Your task to perform on an android device: Open location settings Image 0: 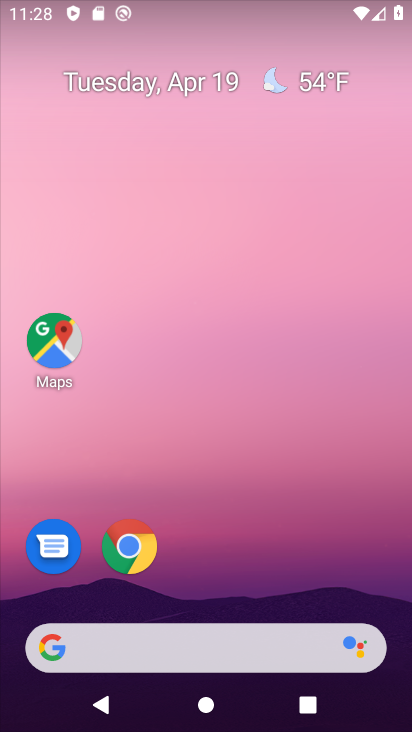
Step 0: press home button
Your task to perform on an android device: Open location settings Image 1: 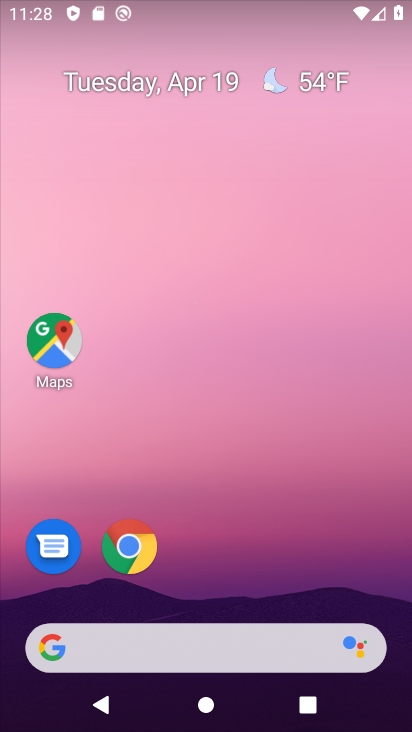
Step 1: drag from (267, 715) to (227, 5)
Your task to perform on an android device: Open location settings Image 2: 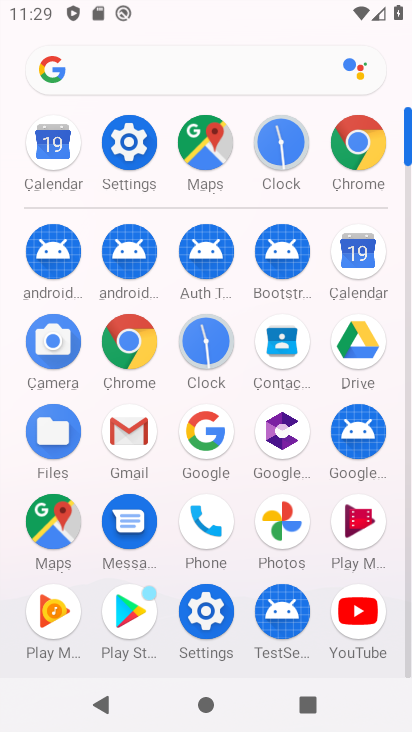
Step 2: click (117, 156)
Your task to perform on an android device: Open location settings Image 3: 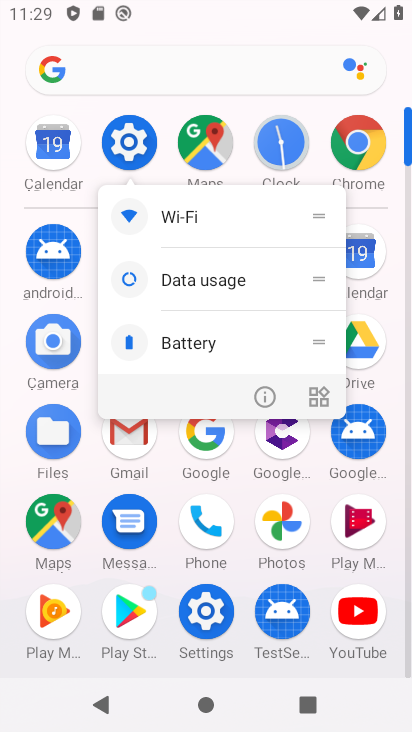
Step 3: click (117, 157)
Your task to perform on an android device: Open location settings Image 4: 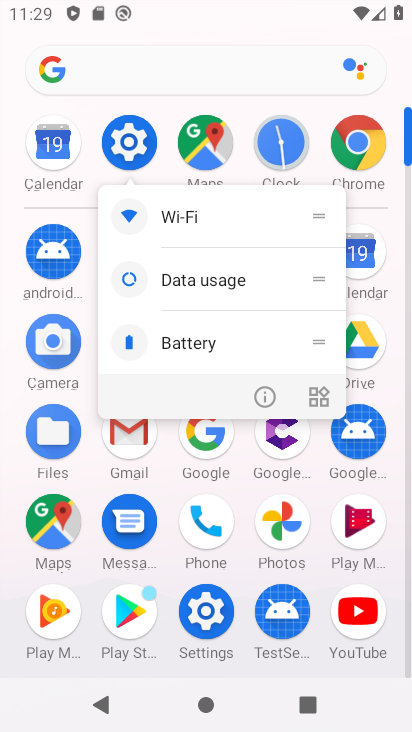
Step 4: click (117, 157)
Your task to perform on an android device: Open location settings Image 5: 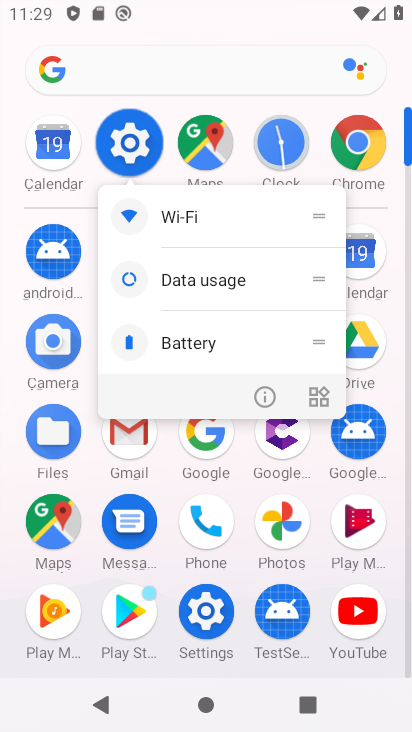
Step 5: click (117, 157)
Your task to perform on an android device: Open location settings Image 6: 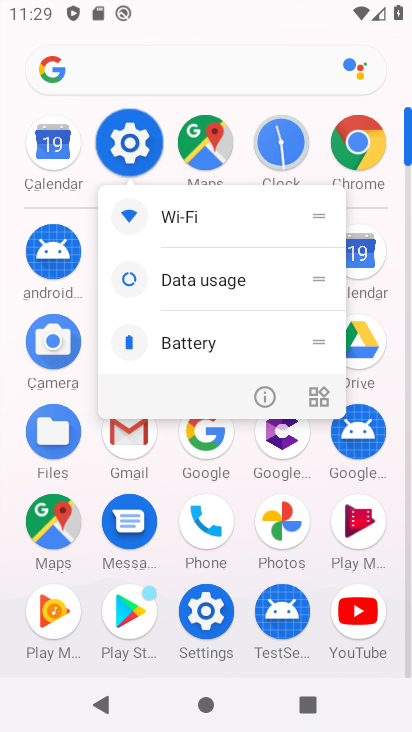
Step 6: click (135, 131)
Your task to perform on an android device: Open location settings Image 7: 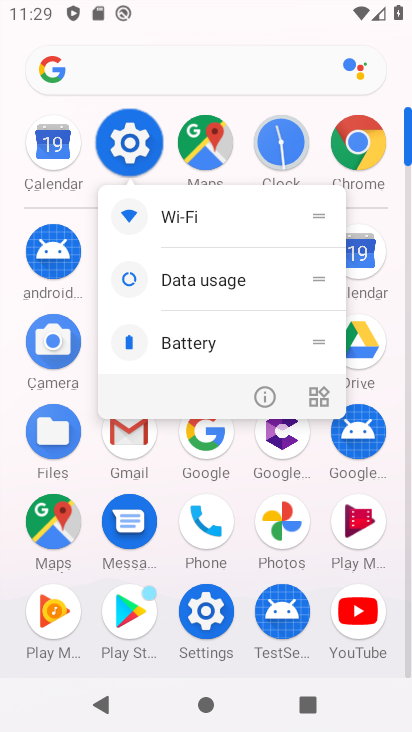
Step 7: click (127, 126)
Your task to perform on an android device: Open location settings Image 8: 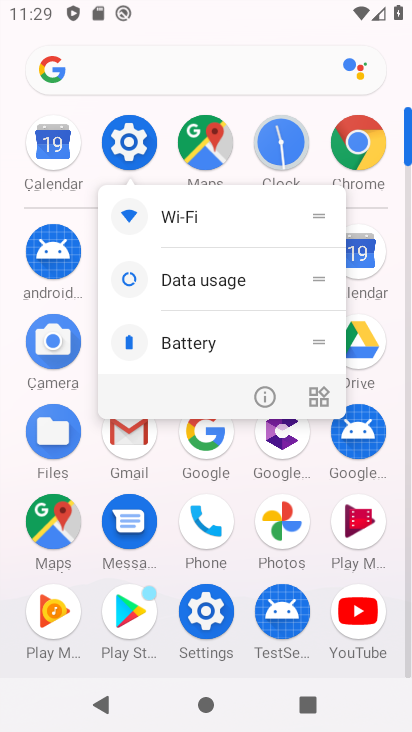
Step 8: click (127, 126)
Your task to perform on an android device: Open location settings Image 9: 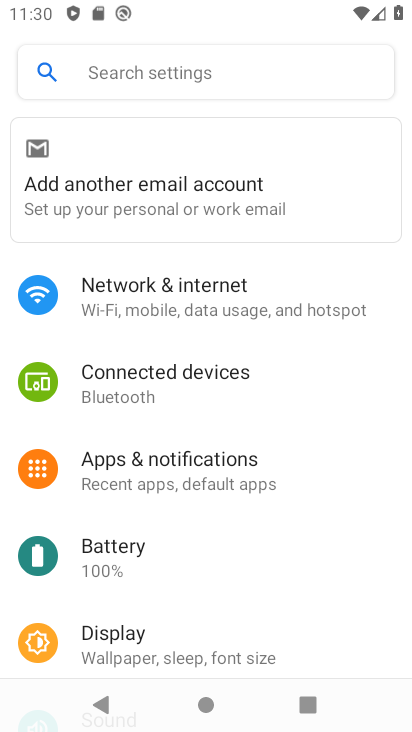
Step 9: drag from (227, 549) to (137, 12)
Your task to perform on an android device: Open location settings Image 10: 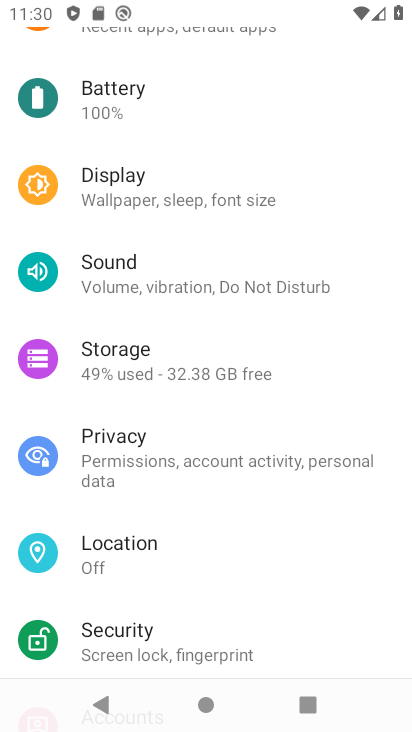
Step 10: click (181, 551)
Your task to perform on an android device: Open location settings Image 11: 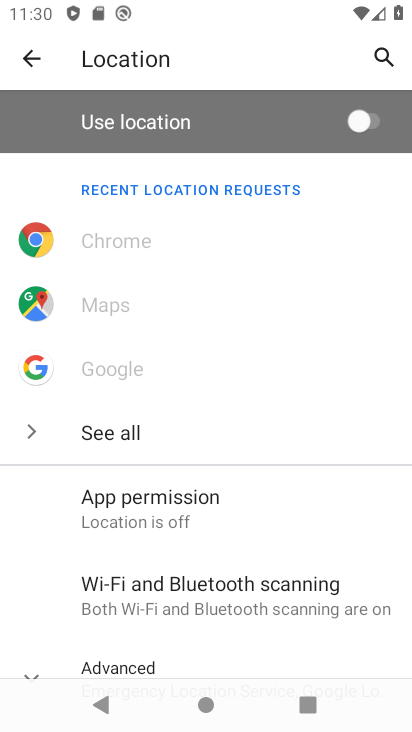
Step 11: task complete